Your task to perform on an android device: Search for pizza restaurants on Maps Image 0: 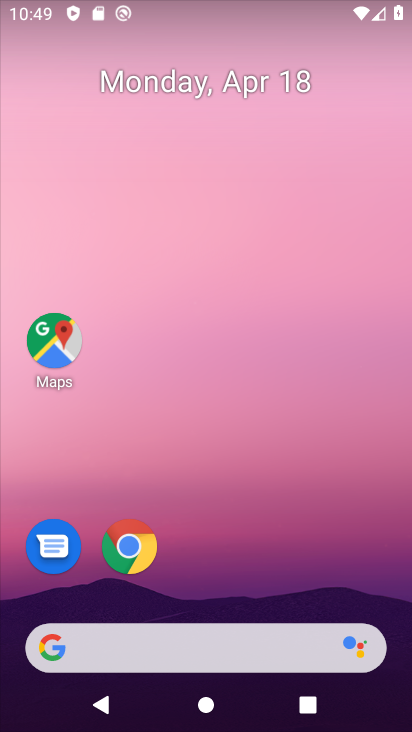
Step 0: click (68, 341)
Your task to perform on an android device: Search for pizza restaurants on Maps Image 1: 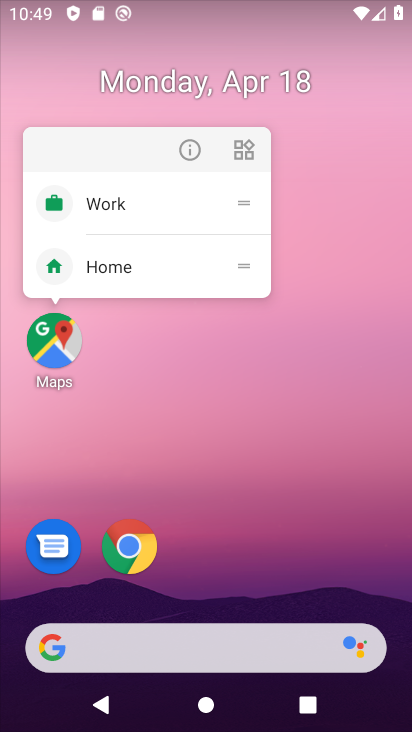
Step 1: click (70, 359)
Your task to perform on an android device: Search for pizza restaurants on Maps Image 2: 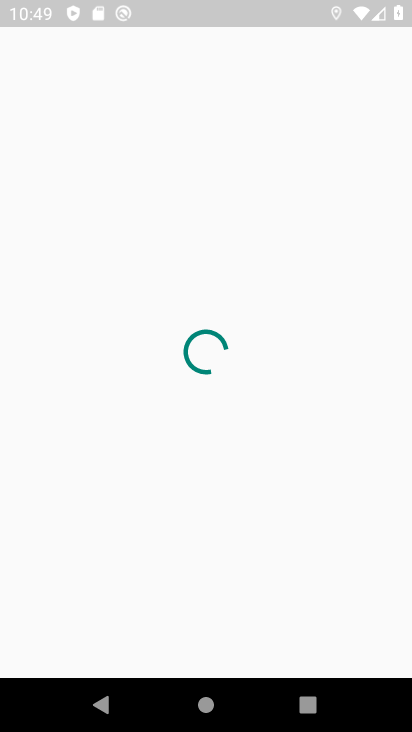
Step 2: click (387, 606)
Your task to perform on an android device: Search for pizza restaurants on Maps Image 3: 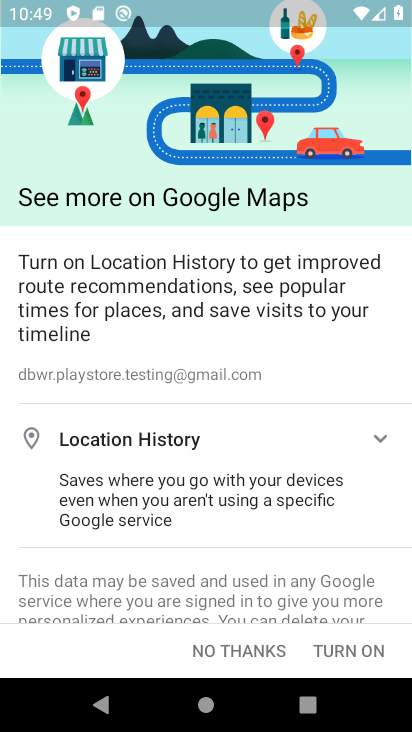
Step 3: click (365, 648)
Your task to perform on an android device: Search for pizza restaurants on Maps Image 4: 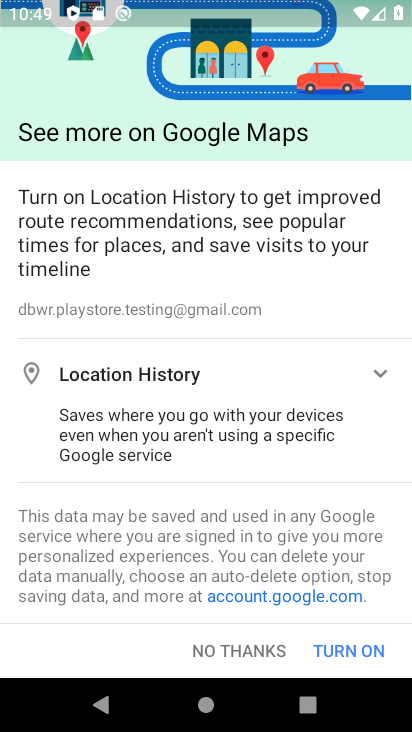
Step 4: click (365, 648)
Your task to perform on an android device: Search for pizza restaurants on Maps Image 5: 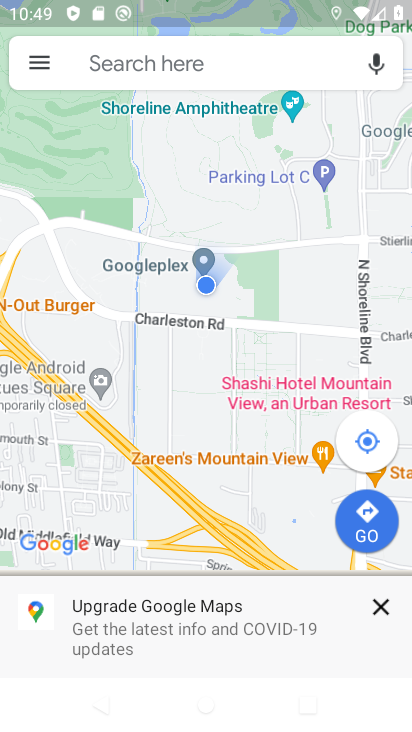
Step 5: click (380, 608)
Your task to perform on an android device: Search for pizza restaurants on Maps Image 6: 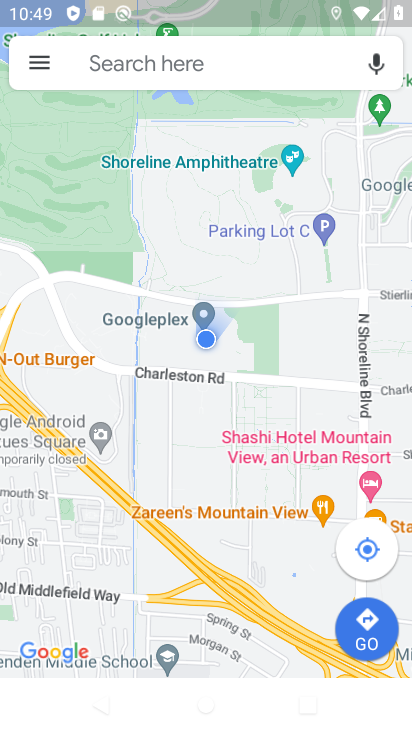
Step 6: click (208, 69)
Your task to perform on an android device: Search for pizza restaurants on Maps Image 7: 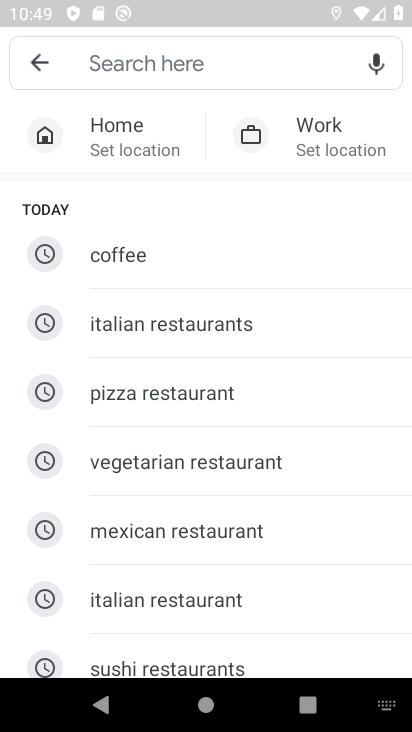
Step 7: type "pizza"
Your task to perform on an android device: Search for pizza restaurants on Maps Image 8: 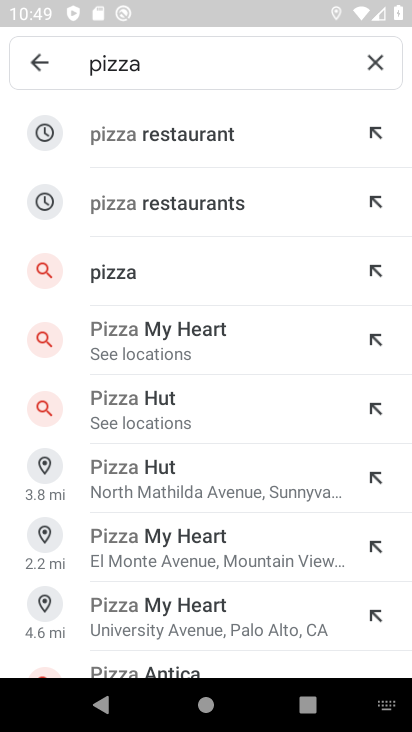
Step 8: click (336, 126)
Your task to perform on an android device: Search for pizza restaurants on Maps Image 9: 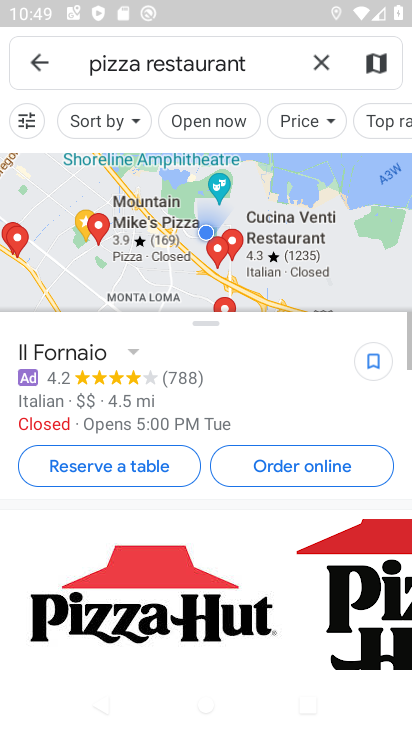
Step 9: task complete